Your task to perform on an android device: toggle location history Image 0: 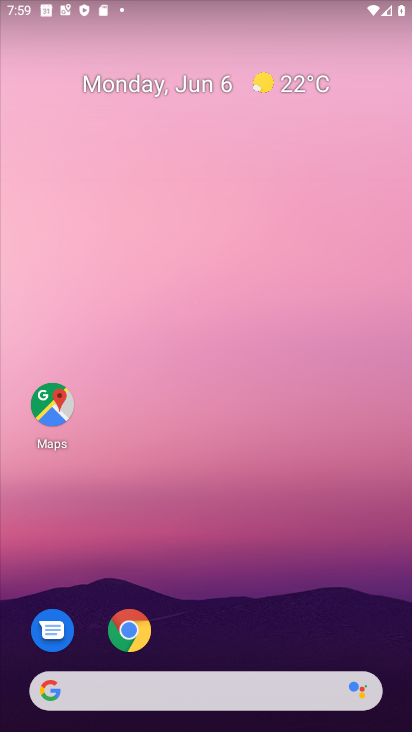
Step 0: drag from (132, 728) to (165, 94)
Your task to perform on an android device: toggle location history Image 1: 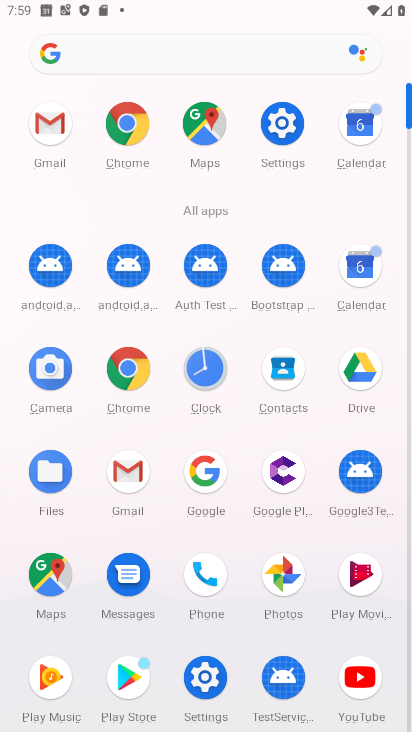
Step 1: click (291, 138)
Your task to perform on an android device: toggle location history Image 2: 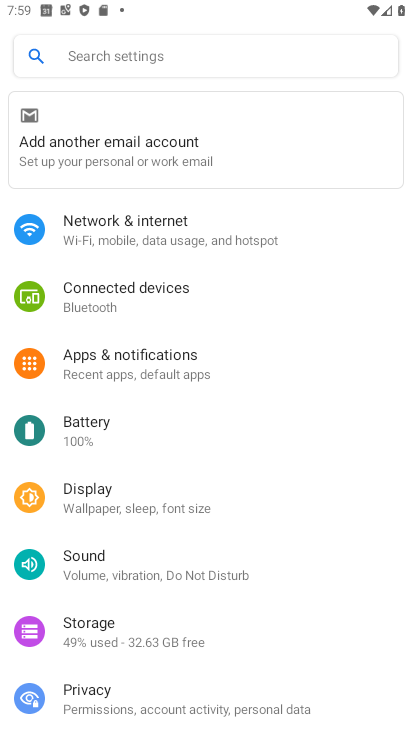
Step 2: drag from (204, 607) to (183, 271)
Your task to perform on an android device: toggle location history Image 3: 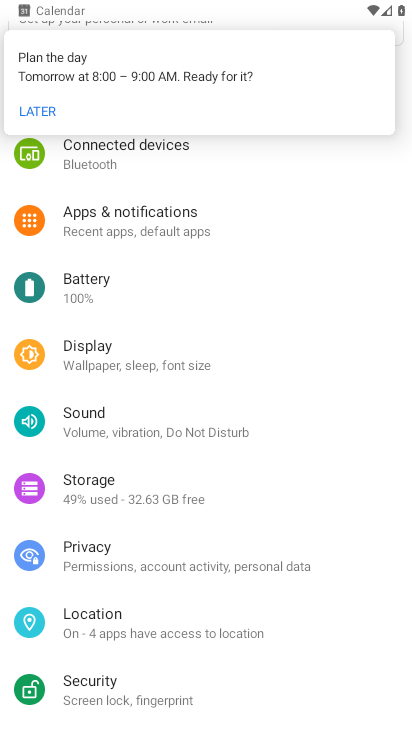
Step 3: click (136, 630)
Your task to perform on an android device: toggle location history Image 4: 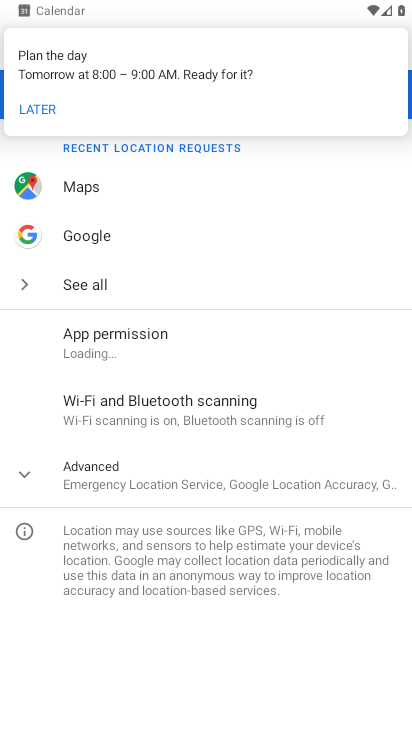
Step 4: click (122, 481)
Your task to perform on an android device: toggle location history Image 5: 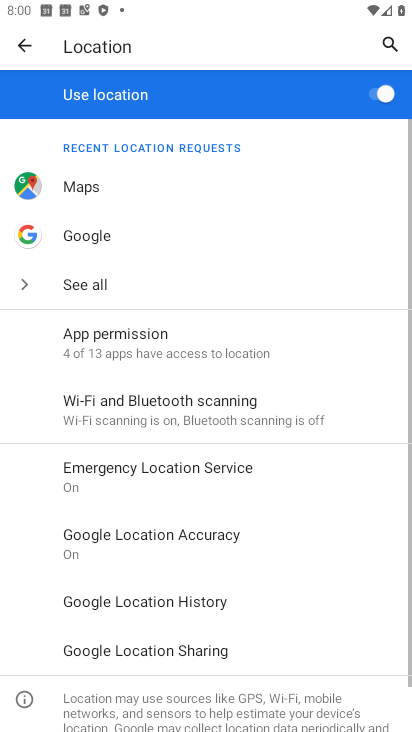
Step 5: click (166, 609)
Your task to perform on an android device: toggle location history Image 6: 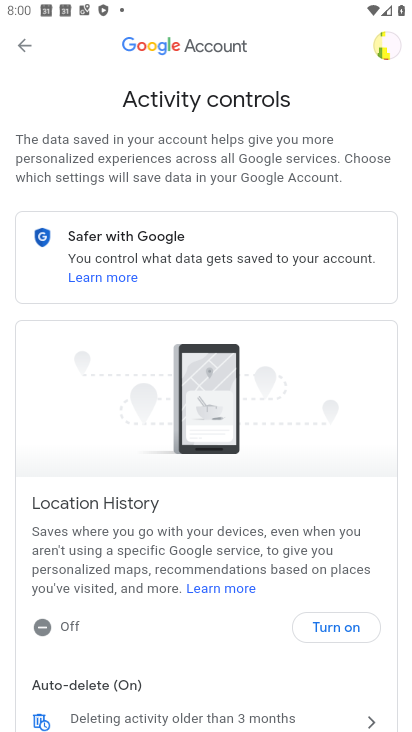
Step 6: click (348, 633)
Your task to perform on an android device: toggle location history Image 7: 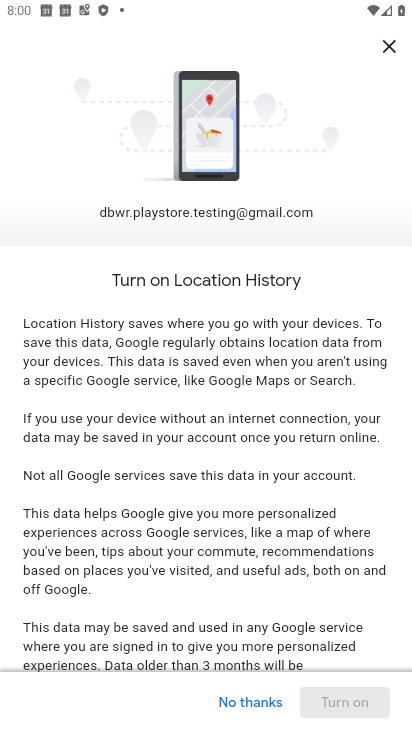
Step 7: drag from (305, 636) to (373, 213)
Your task to perform on an android device: toggle location history Image 8: 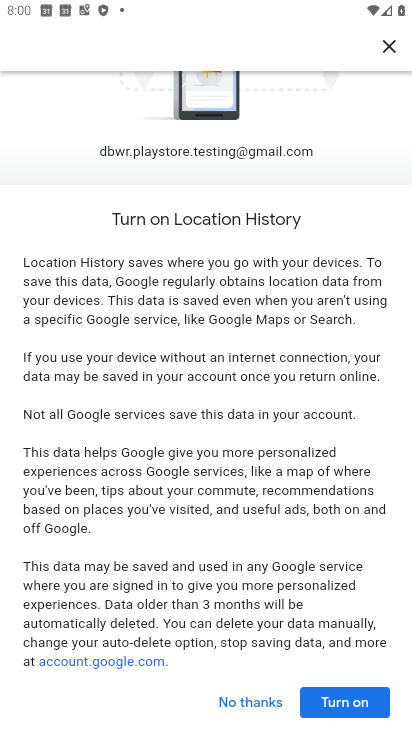
Step 8: click (349, 711)
Your task to perform on an android device: toggle location history Image 9: 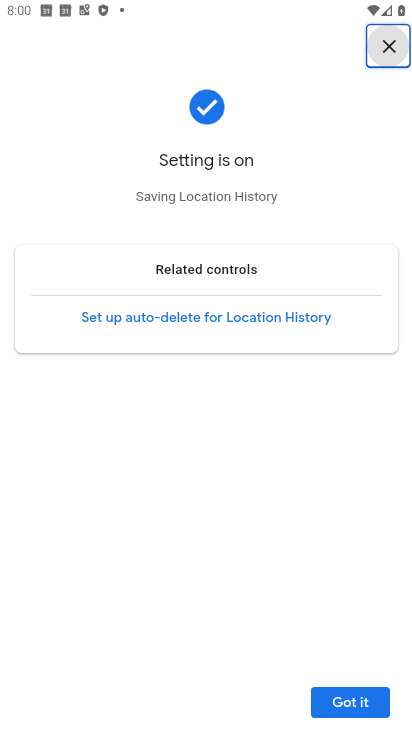
Step 9: click (370, 706)
Your task to perform on an android device: toggle location history Image 10: 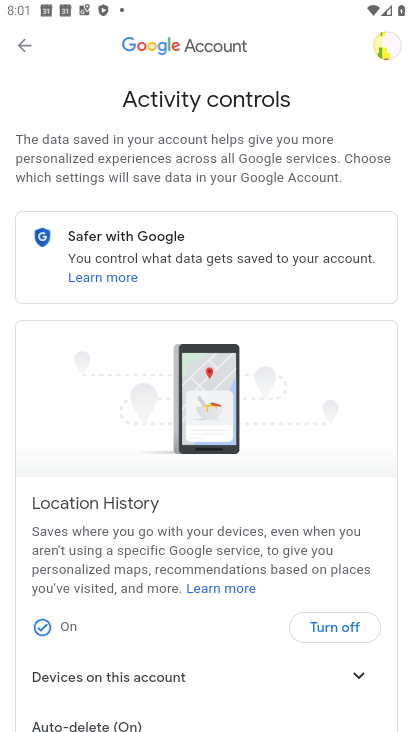
Step 10: task complete